Your task to perform on an android device: Go to sound settings Image 0: 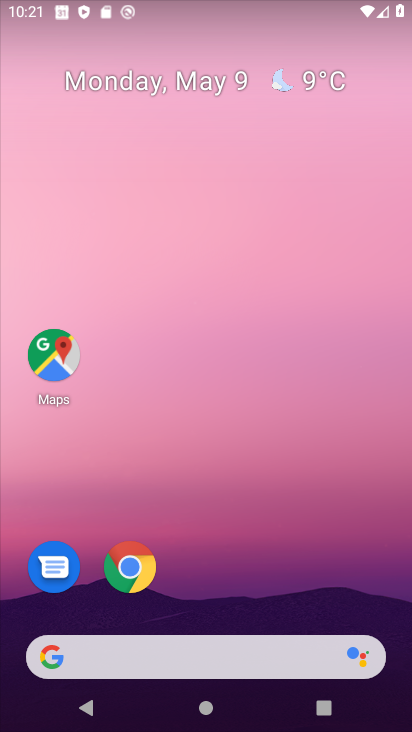
Step 0: drag from (204, 542) to (248, 79)
Your task to perform on an android device: Go to sound settings Image 1: 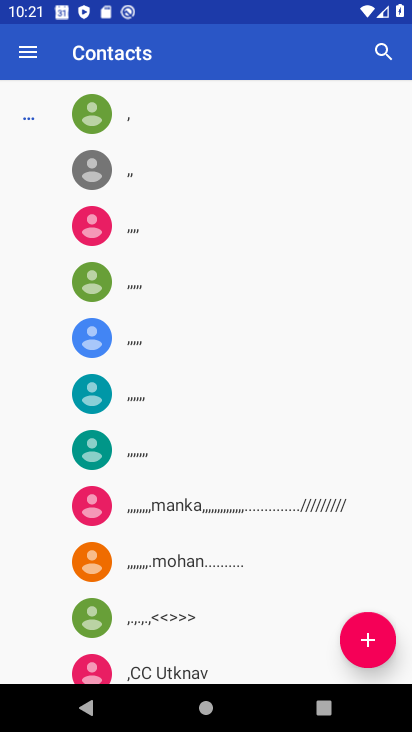
Step 1: press home button
Your task to perform on an android device: Go to sound settings Image 2: 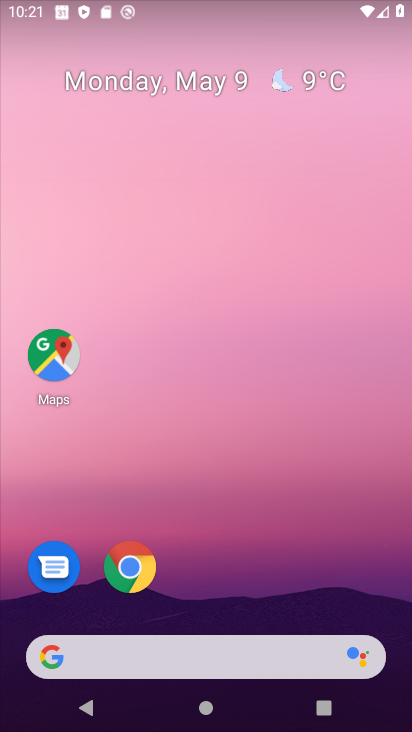
Step 2: drag from (220, 610) to (228, 63)
Your task to perform on an android device: Go to sound settings Image 3: 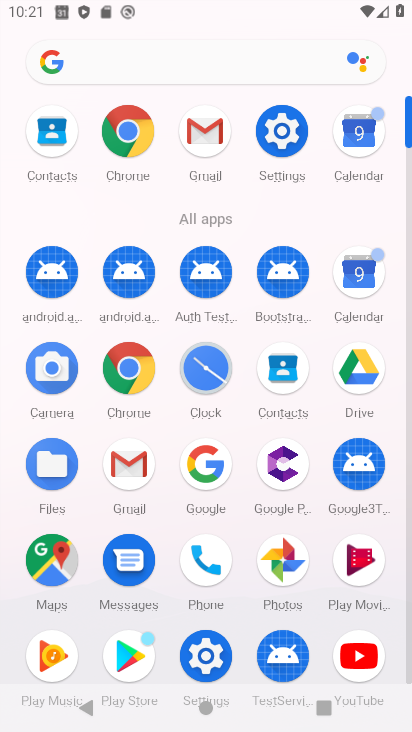
Step 3: click (277, 120)
Your task to perform on an android device: Go to sound settings Image 4: 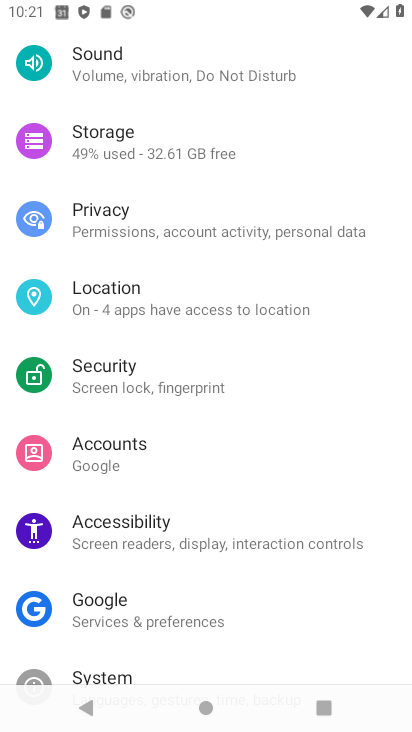
Step 4: click (127, 66)
Your task to perform on an android device: Go to sound settings Image 5: 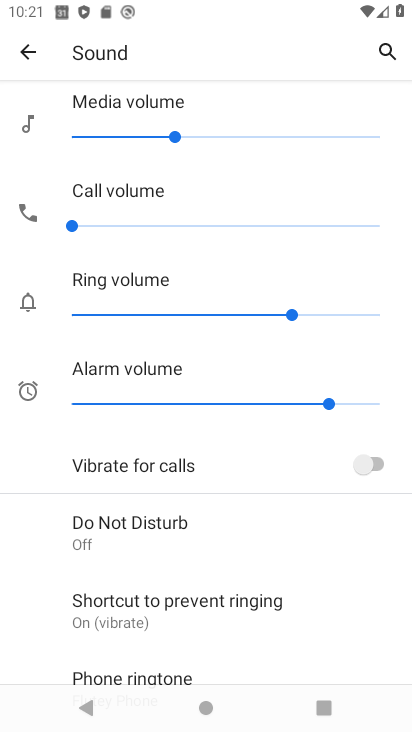
Step 5: drag from (163, 625) to (177, 85)
Your task to perform on an android device: Go to sound settings Image 6: 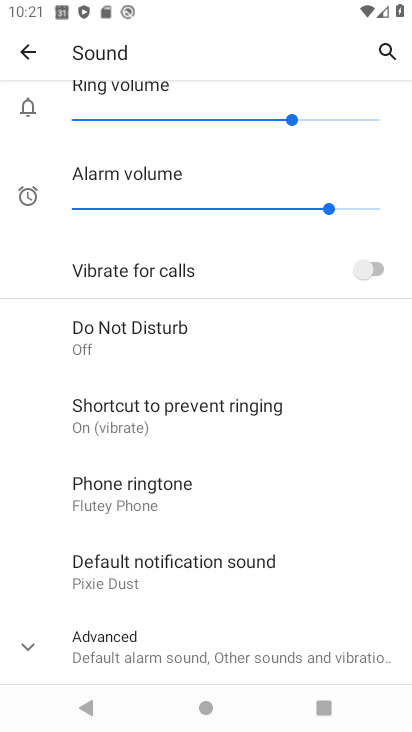
Step 6: click (25, 641)
Your task to perform on an android device: Go to sound settings Image 7: 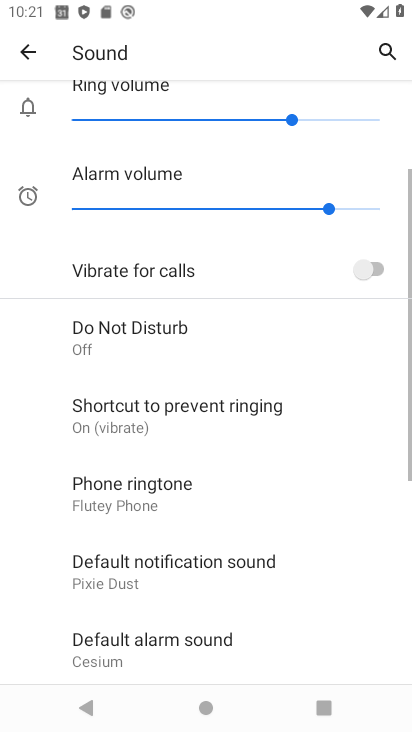
Step 7: task complete